Your task to perform on an android device: Search for flights from Buenos aires to Seoul Image 0: 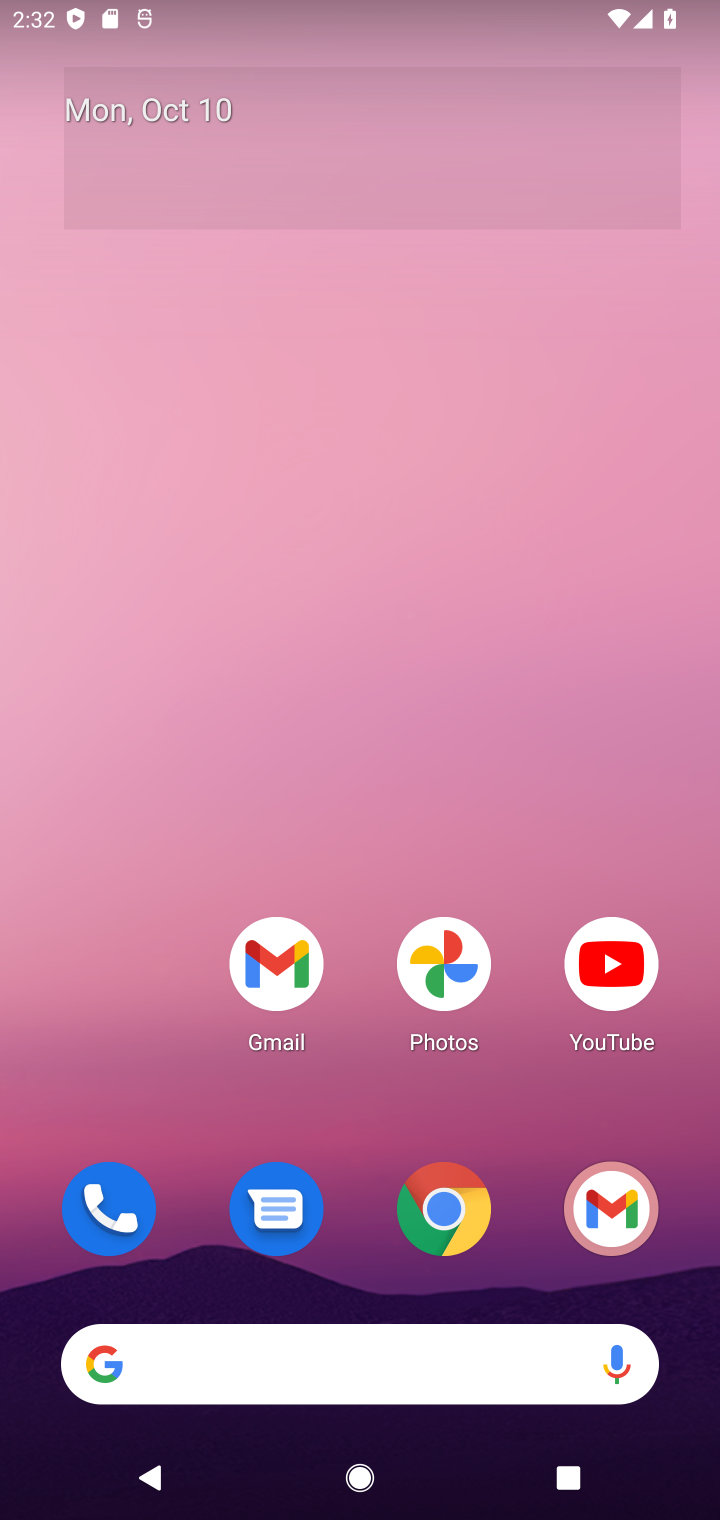
Step 0: click (457, 1208)
Your task to perform on an android device: Search for flights from Buenos aires to Seoul Image 1: 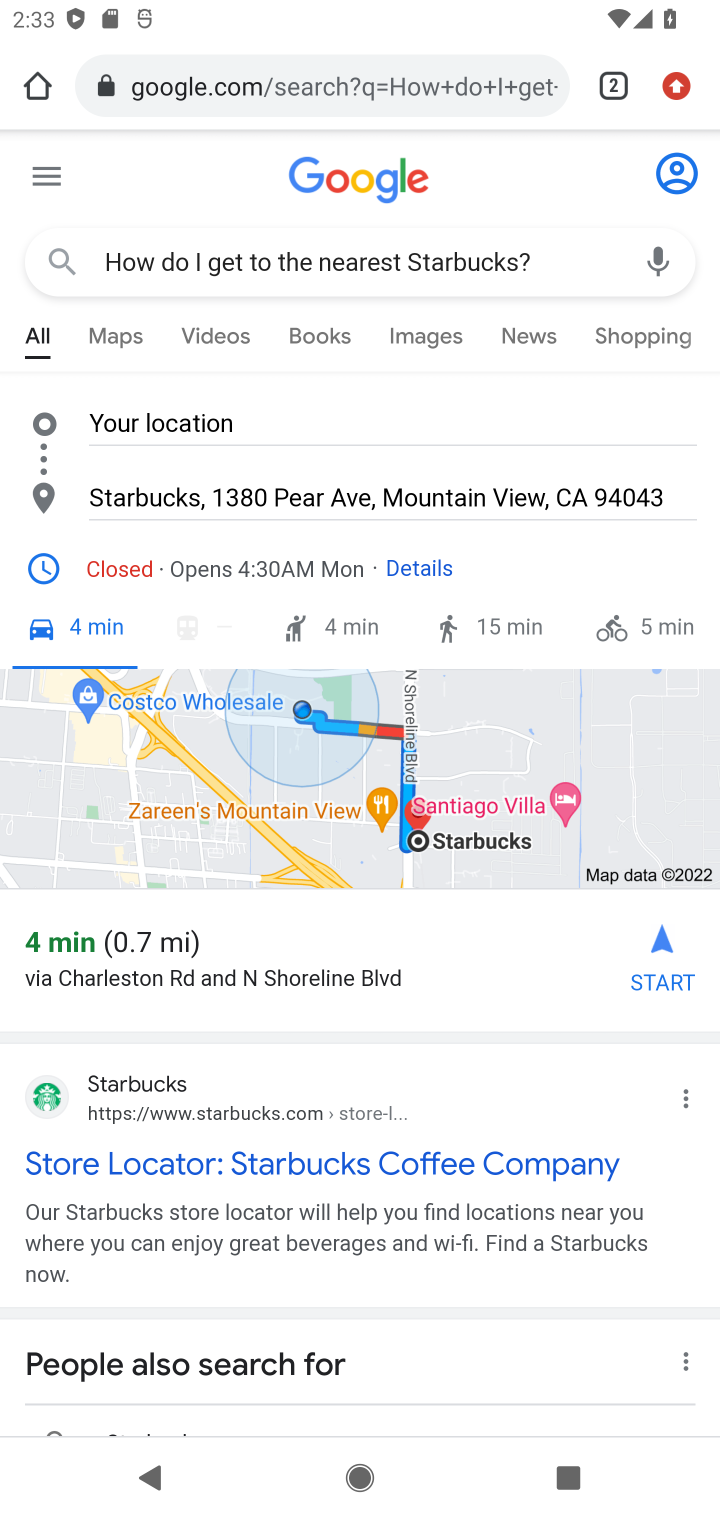
Step 1: click (571, 247)
Your task to perform on an android device: Search for flights from Buenos aires to Seoul Image 2: 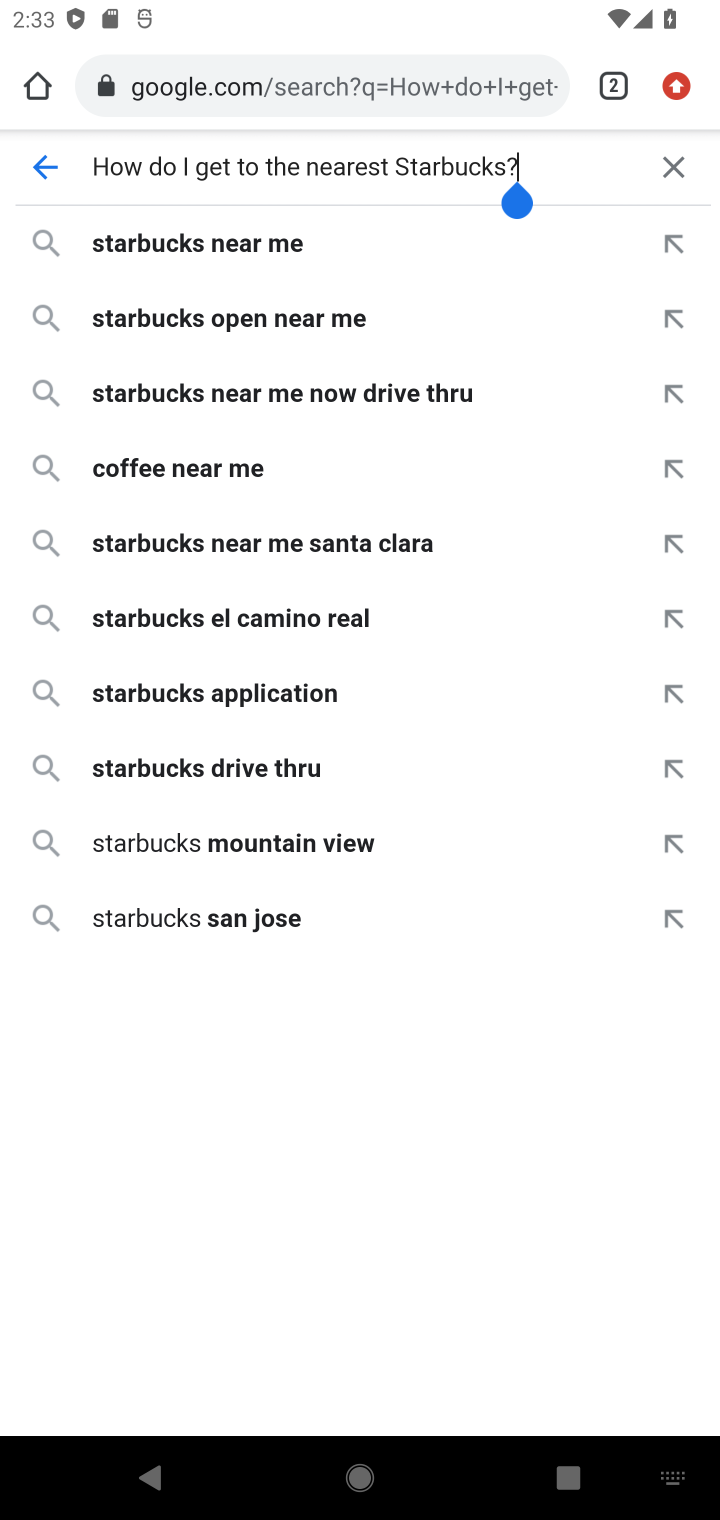
Step 2: click (676, 162)
Your task to perform on an android device: Search for flights from Buenos aires to Seoul Image 3: 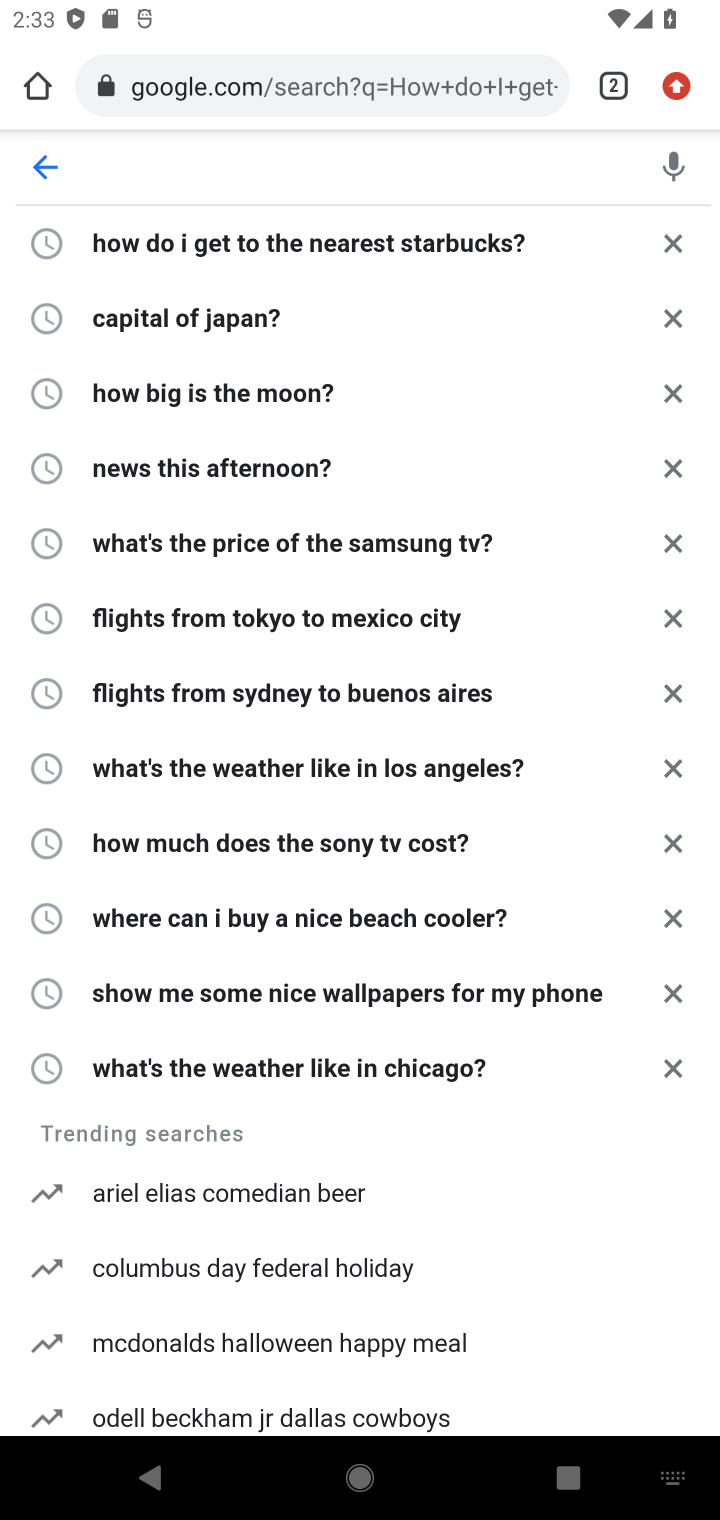
Step 3: type "flights from Buenos aires to Seoul"
Your task to perform on an android device: Search for flights from Buenos aires to Seoul Image 4: 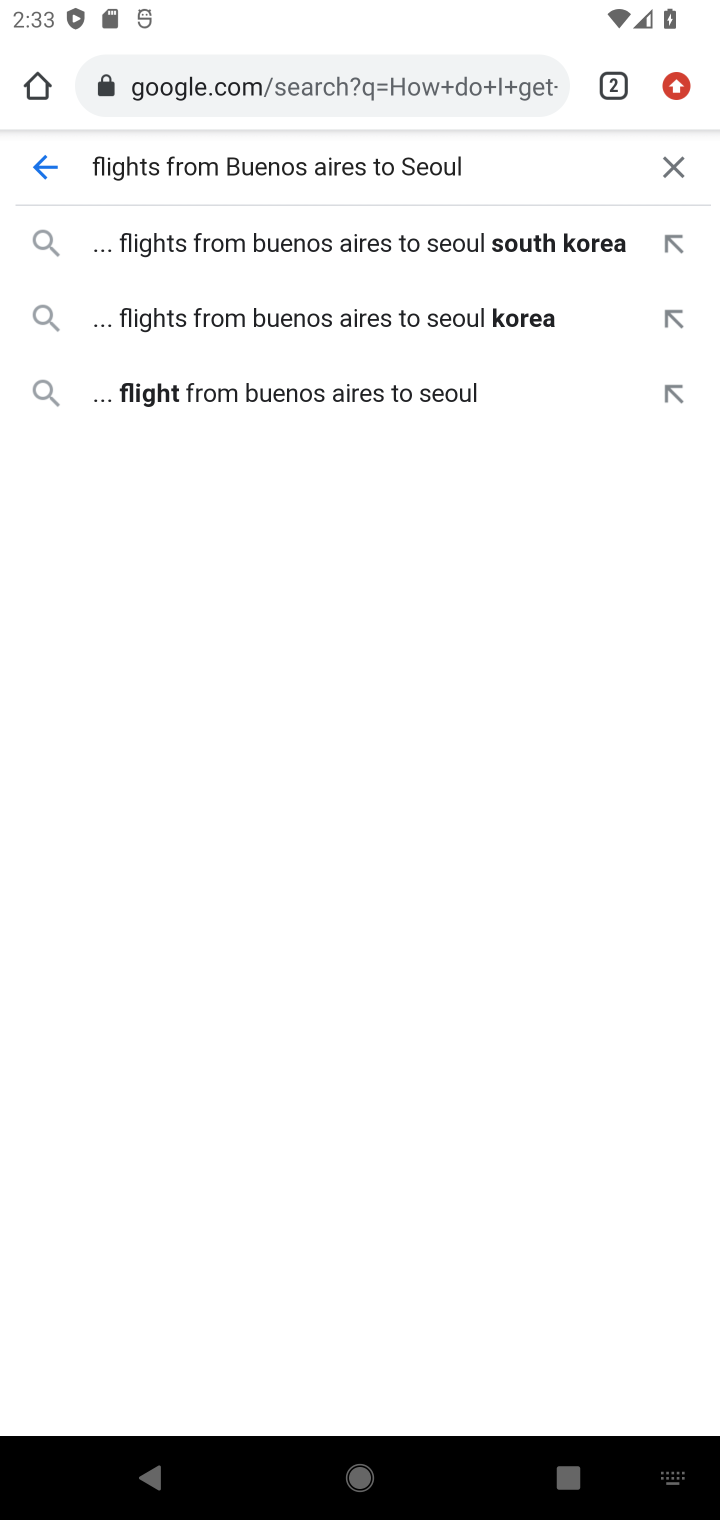
Step 4: press enter
Your task to perform on an android device: Search for flights from Buenos aires to Seoul Image 5: 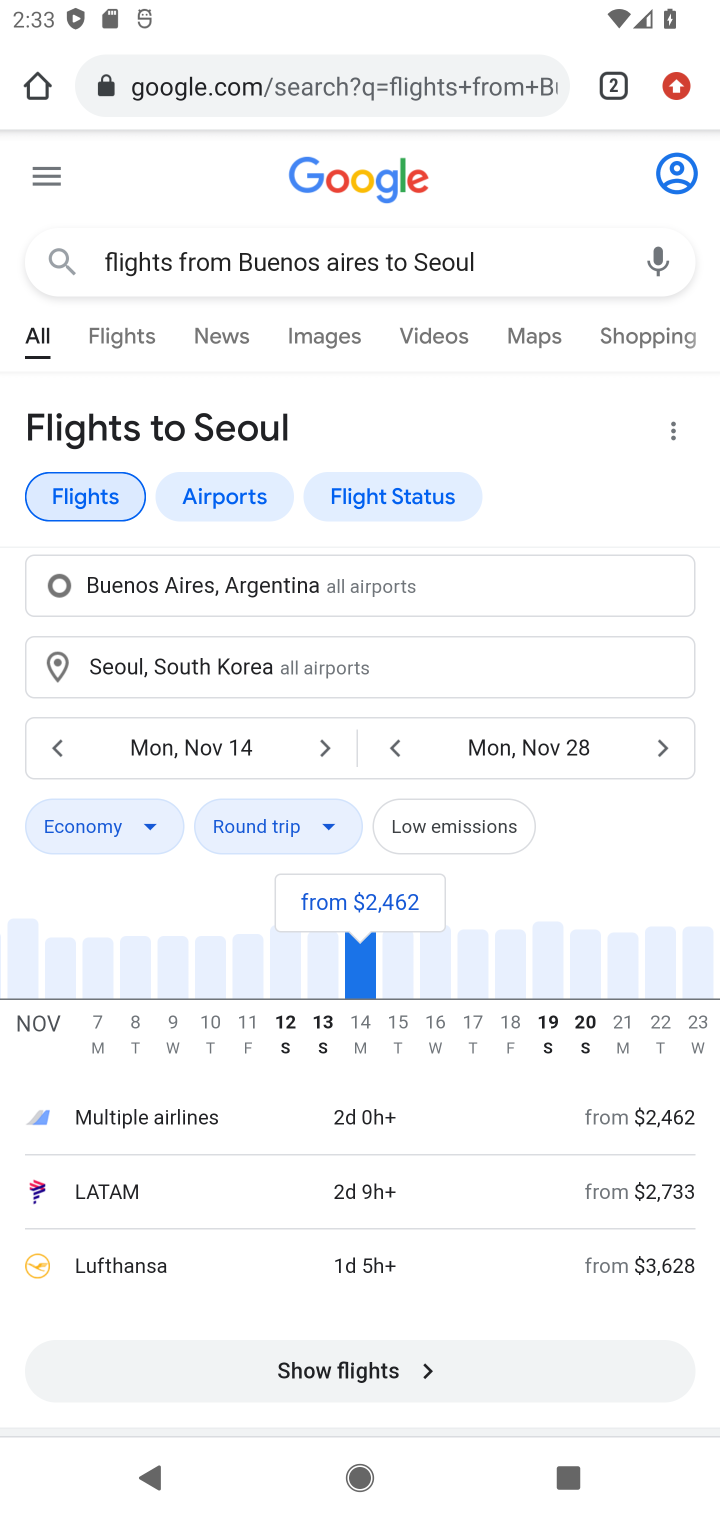
Step 5: task complete